Your task to perform on an android device: check data usage Image 0: 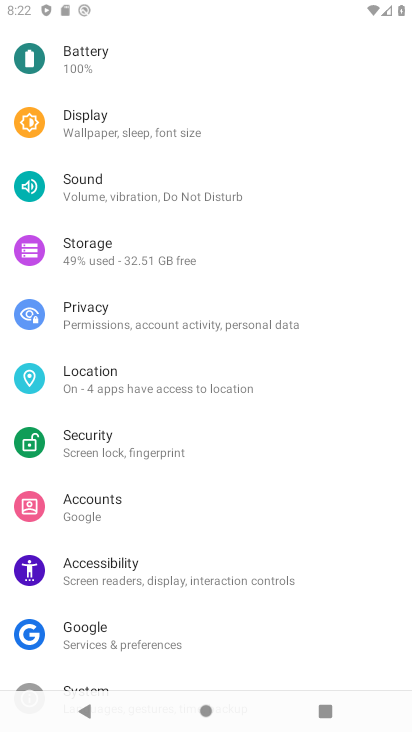
Step 0: drag from (239, 127) to (170, 708)
Your task to perform on an android device: check data usage Image 1: 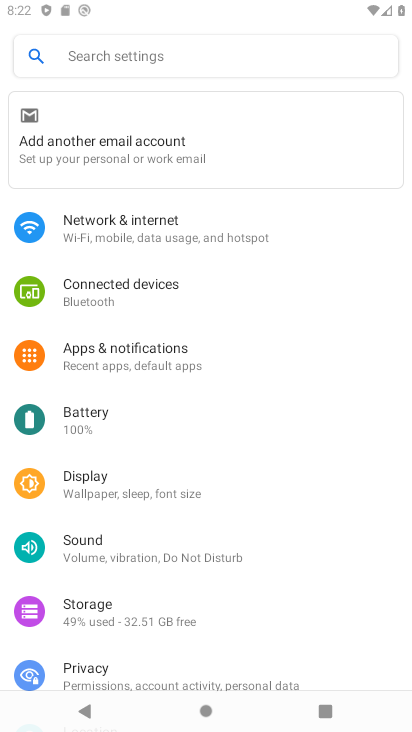
Step 1: click (235, 233)
Your task to perform on an android device: check data usage Image 2: 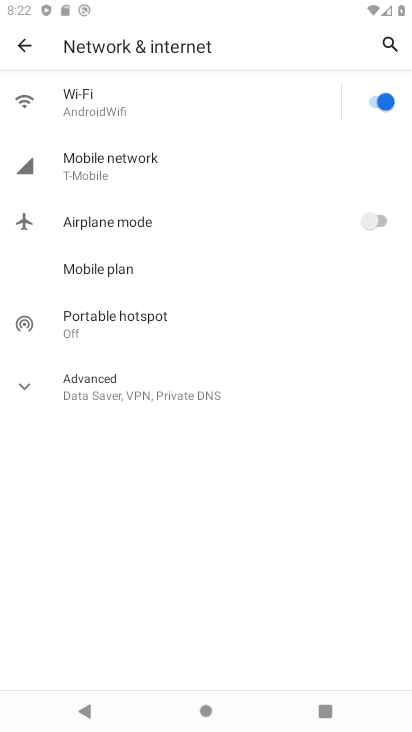
Step 2: click (165, 170)
Your task to perform on an android device: check data usage Image 3: 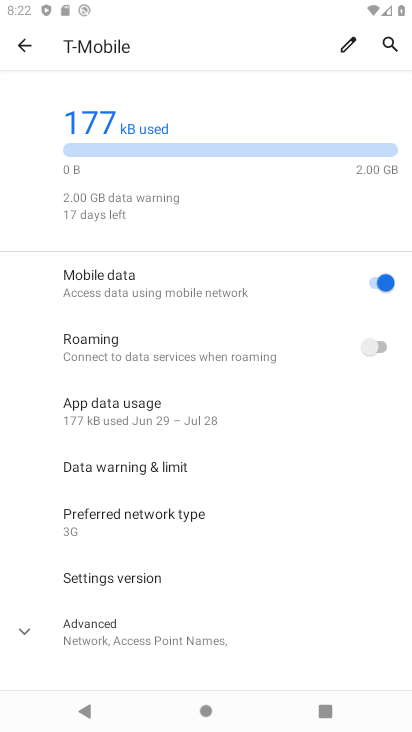
Step 3: task complete